Your task to perform on an android device: Is it going to rain this weekend? Image 0: 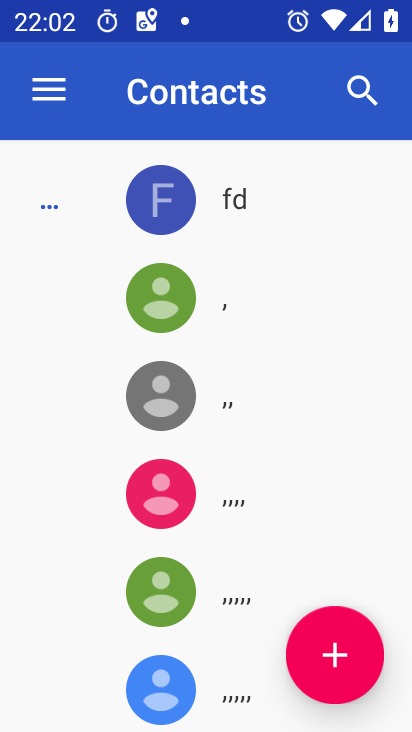
Step 0: press home button
Your task to perform on an android device: Is it going to rain this weekend? Image 1: 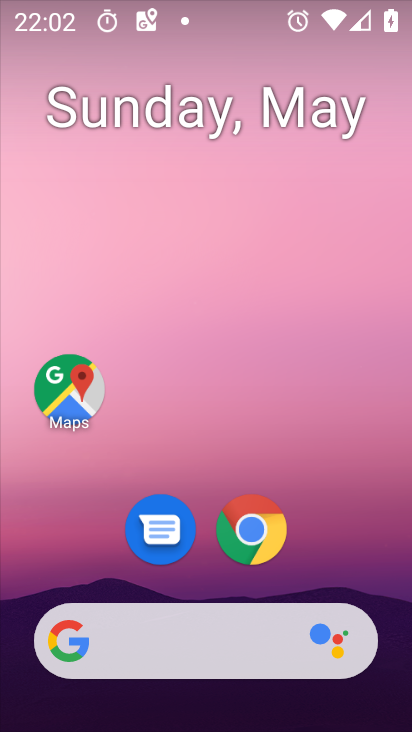
Step 1: click (133, 645)
Your task to perform on an android device: Is it going to rain this weekend? Image 2: 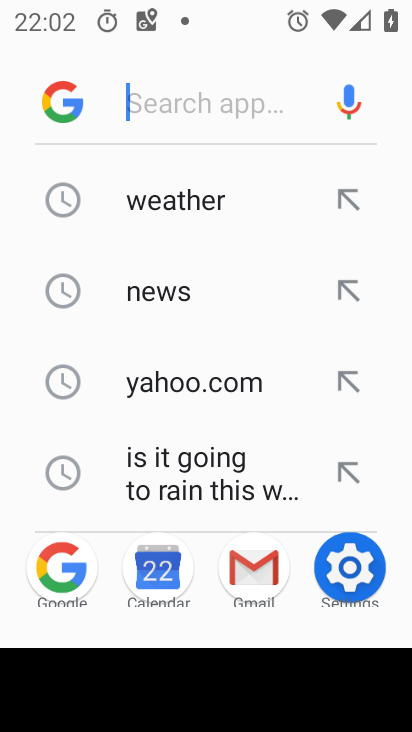
Step 2: click (183, 207)
Your task to perform on an android device: Is it going to rain this weekend? Image 3: 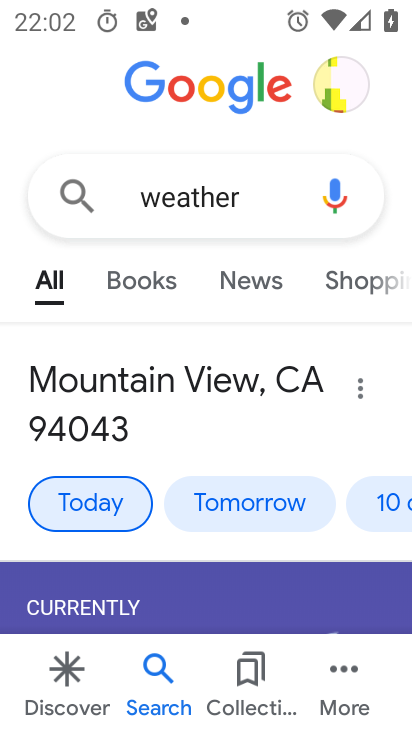
Step 3: click (388, 499)
Your task to perform on an android device: Is it going to rain this weekend? Image 4: 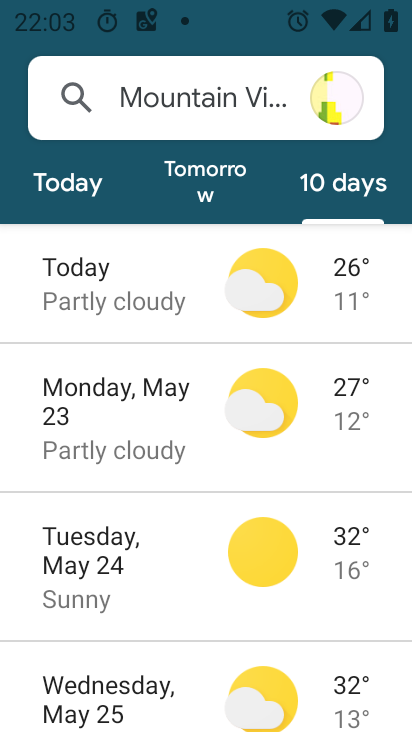
Step 4: task complete